Your task to perform on an android device: find which apps use the phone's location Image 0: 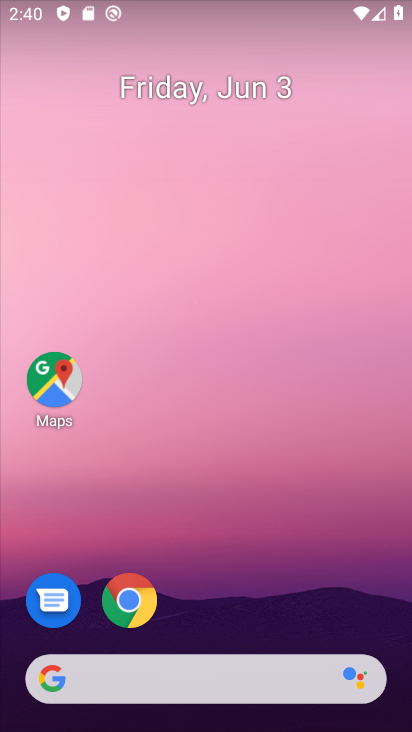
Step 0: click (180, 144)
Your task to perform on an android device: find which apps use the phone's location Image 1: 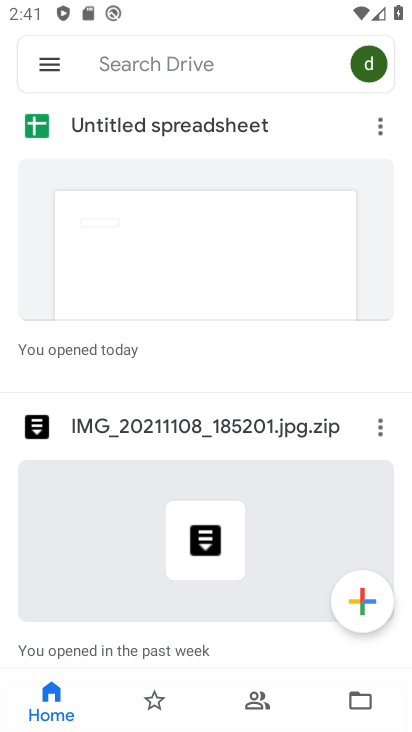
Step 1: press home button
Your task to perform on an android device: find which apps use the phone's location Image 2: 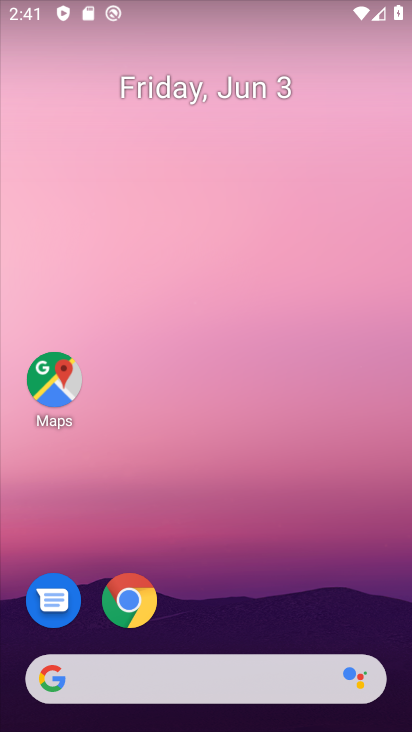
Step 2: drag from (361, 516) to (312, 66)
Your task to perform on an android device: find which apps use the phone's location Image 3: 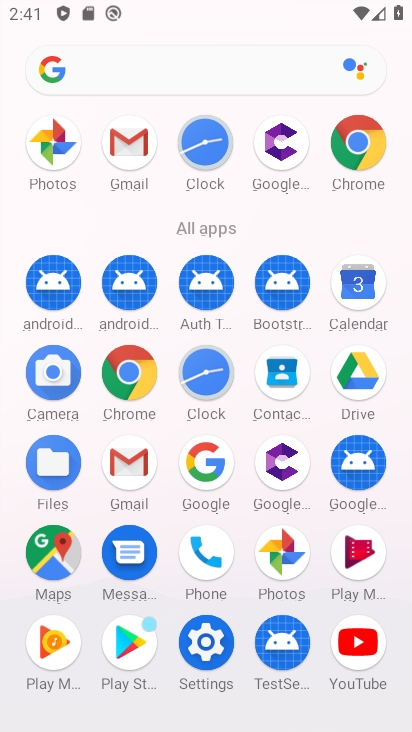
Step 3: drag from (312, 232) to (273, 65)
Your task to perform on an android device: find which apps use the phone's location Image 4: 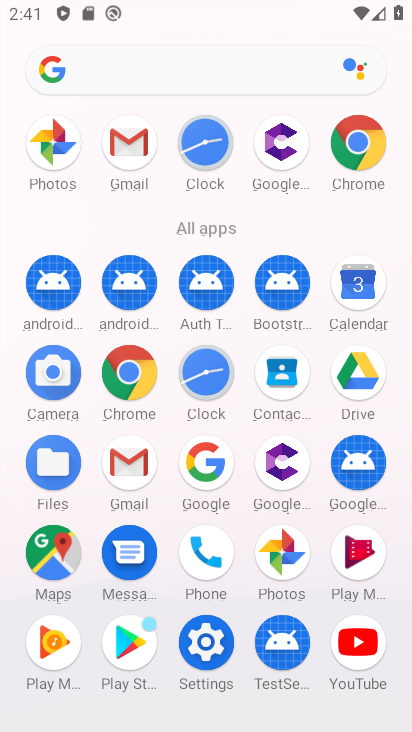
Step 4: click (208, 630)
Your task to perform on an android device: find which apps use the phone's location Image 5: 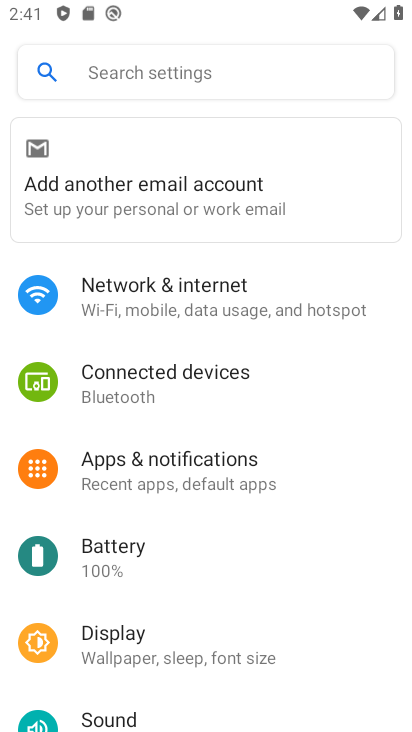
Step 5: drag from (191, 628) to (186, 389)
Your task to perform on an android device: find which apps use the phone's location Image 6: 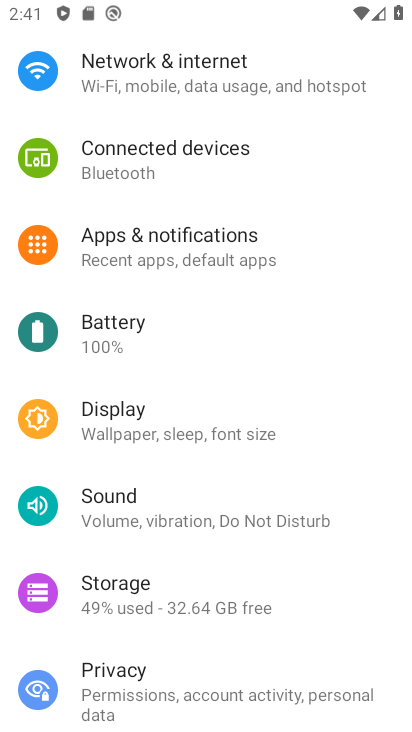
Step 6: drag from (221, 569) to (201, 348)
Your task to perform on an android device: find which apps use the phone's location Image 7: 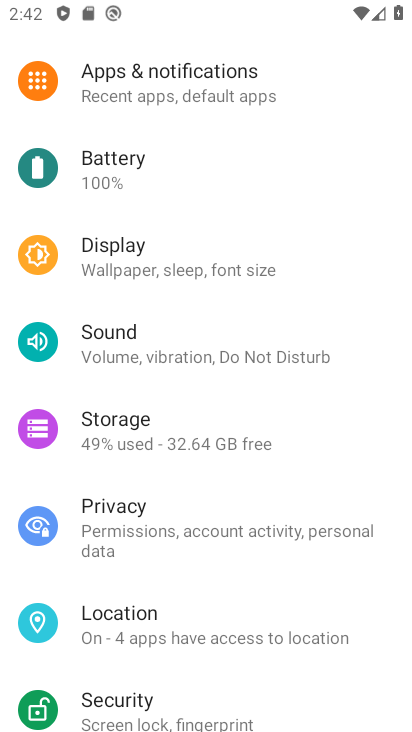
Step 7: click (174, 609)
Your task to perform on an android device: find which apps use the phone's location Image 8: 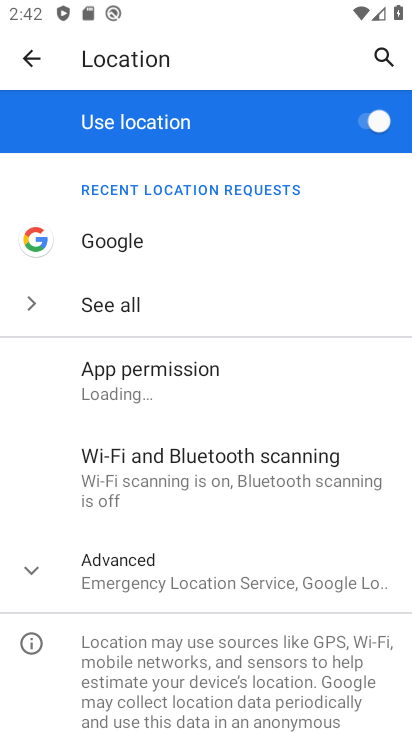
Step 8: click (285, 374)
Your task to perform on an android device: find which apps use the phone's location Image 9: 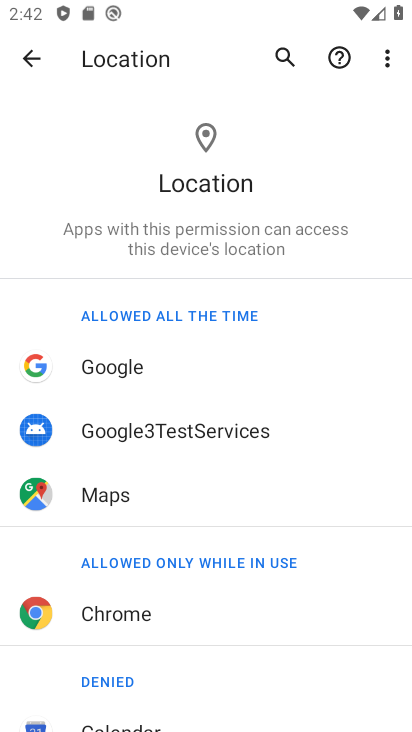
Step 9: task complete